Your task to perform on an android device: Open the Play Movies app and select the watchlist tab. Image 0: 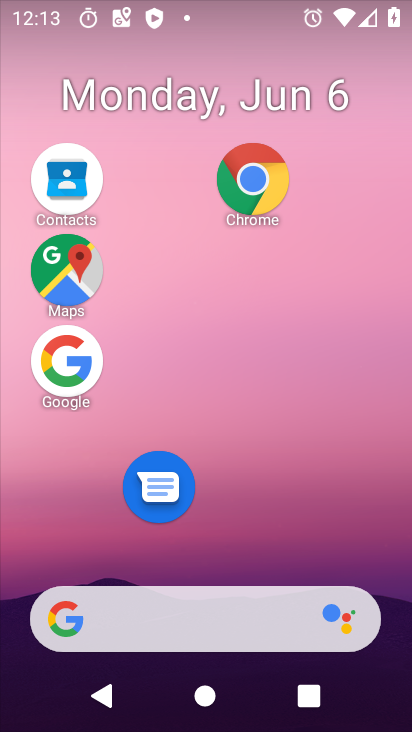
Step 0: drag from (227, 544) to (229, 4)
Your task to perform on an android device: Open the Play Movies app and select the watchlist tab. Image 1: 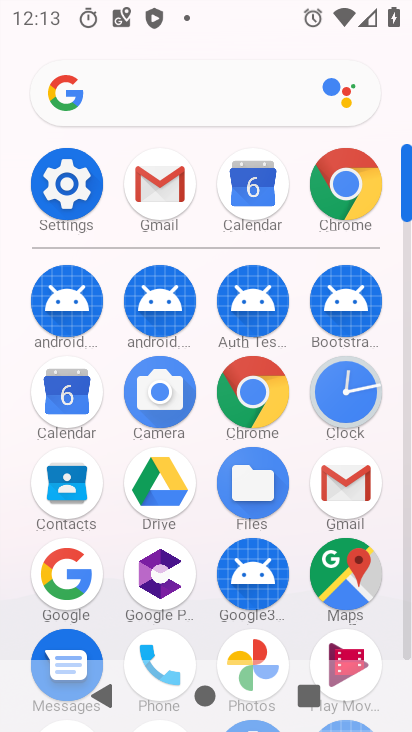
Step 1: drag from (215, 482) to (203, 124)
Your task to perform on an android device: Open the Play Movies app and select the watchlist tab. Image 2: 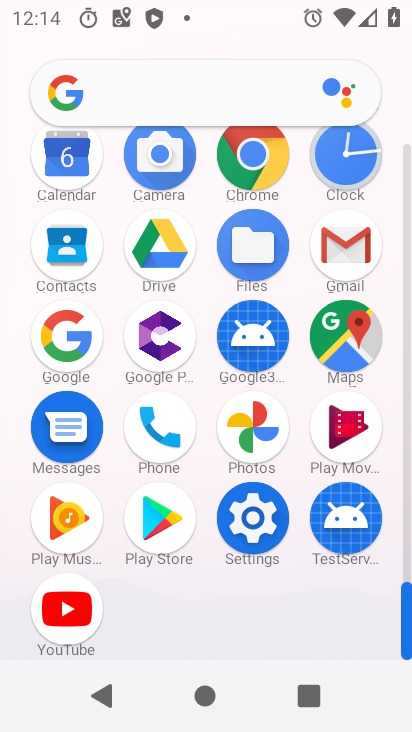
Step 2: click (345, 434)
Your task to perform on an android device: Open the Play Movies app and select the watchlist tab. Image 3: 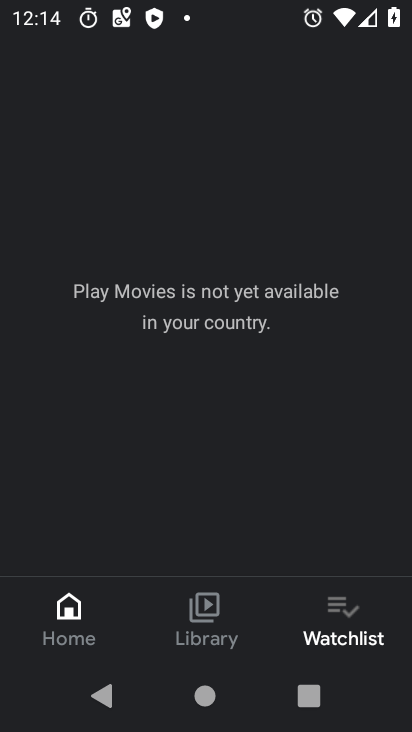
Step 3: click (351, 608)
Your task to perform on an android device: Open the Play Movies app and select the watchlist tab. Image 4: 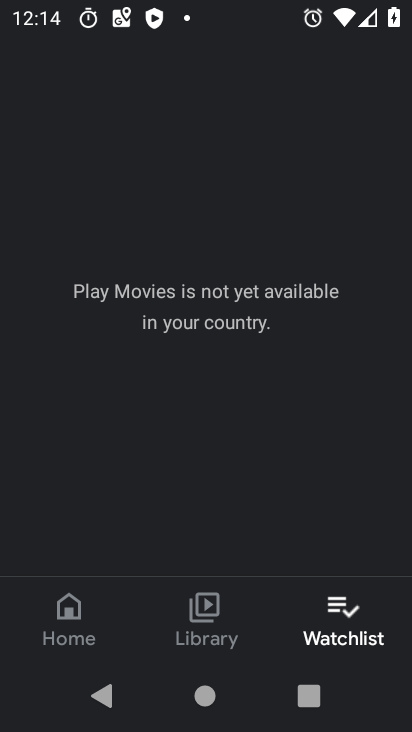
Step 4: task complete